Your task to perform on an android device: turn on wifi Image 0: 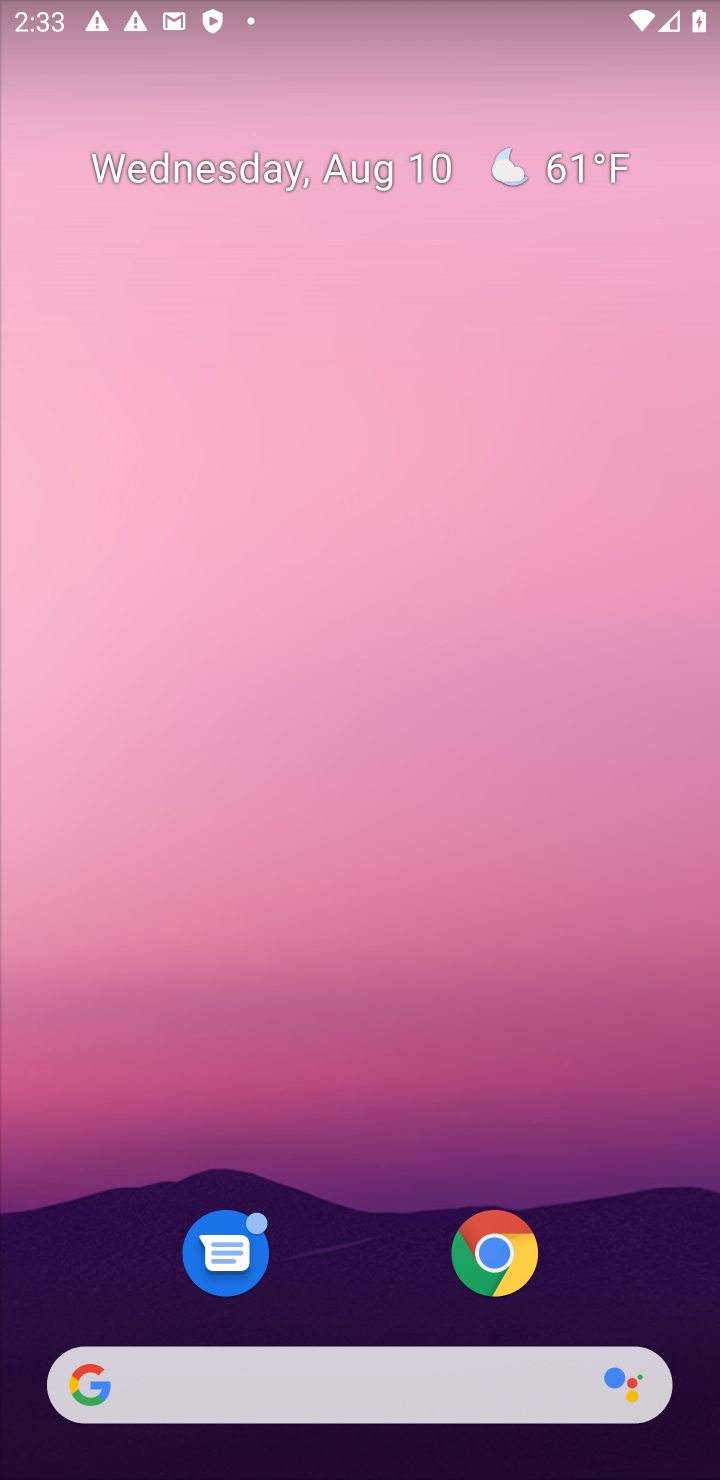
Step 0: task complete